Your task to perform on an android device: Go to Wikipedia Image 0: 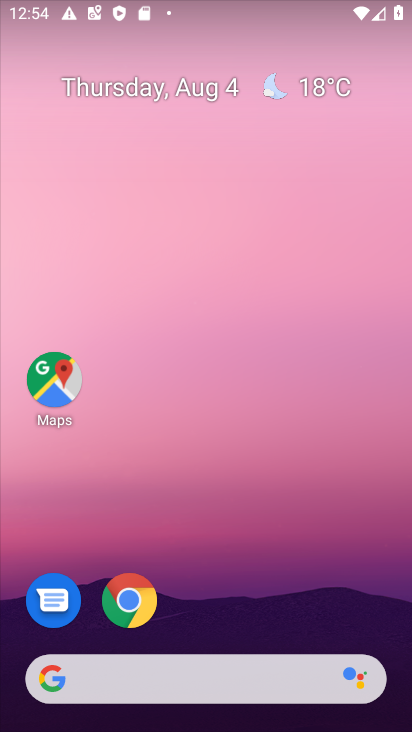
Step 0: click (123, 605)
Your task to perform on an android device: Go to Wikipedia Image 1: 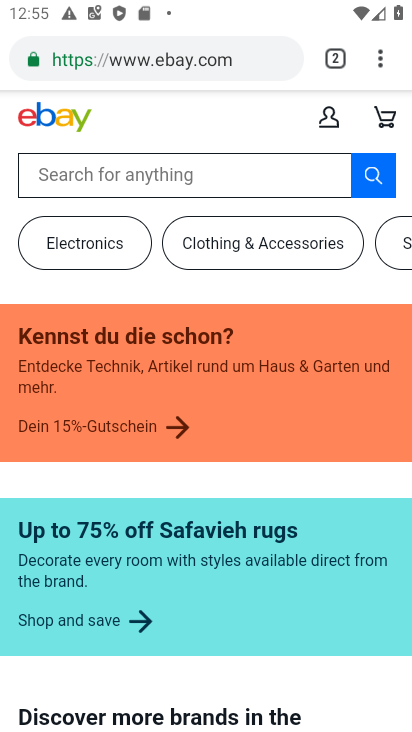
Step 1: drag from (380, 63) to (243, 183)
Your task to perform on an android device: Go to Wikipedia Image 2: 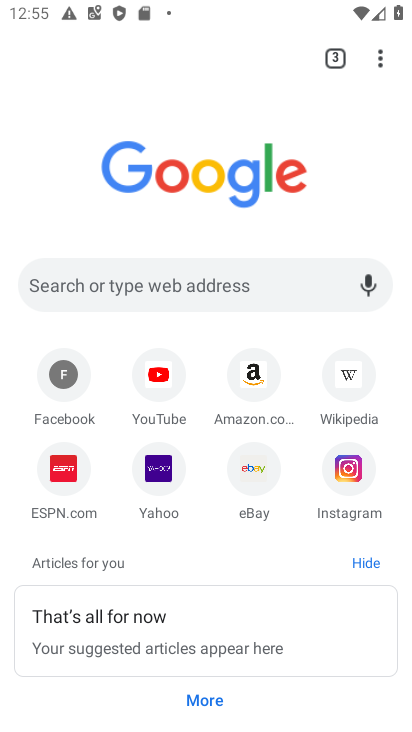
Step 2: click (344, 389)
Your task to perform on an android device: Go to Wikipedia Image 3: 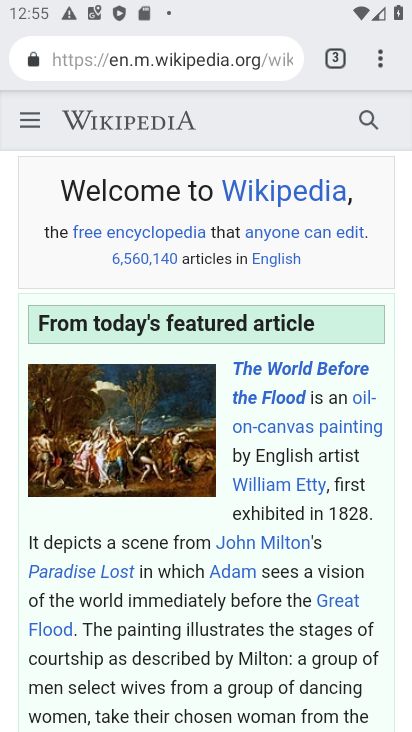
Step 3: task complete